Your task to perform on an android device: What's on my calendar tomorrow? Image 0: 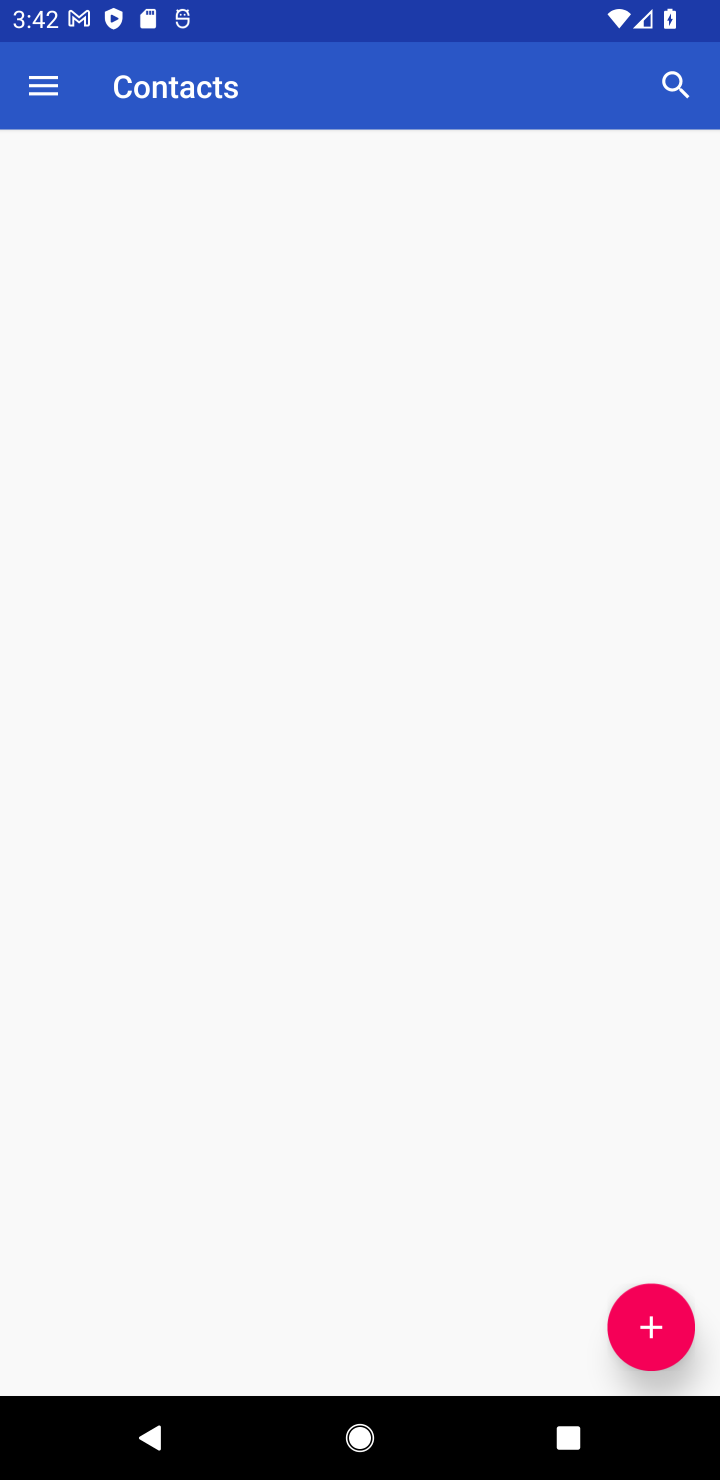
Step 0: press home button
Your task to perform on an android device: What's on my calendar tomorrow? Image 1: 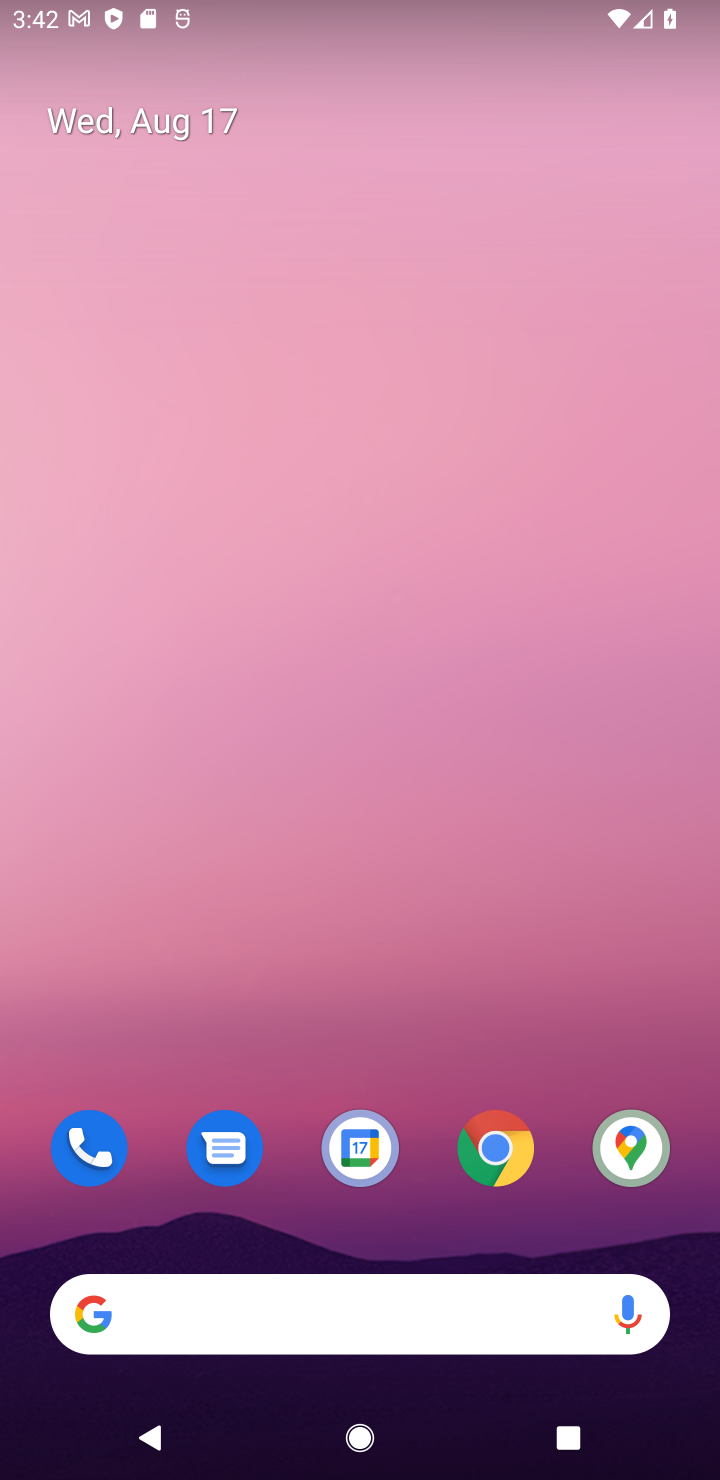
Step 1: drag from (458, 1061) to (414, 169)
Your task to perform on an android device: What's on my calendar tomorrow? Image 2: 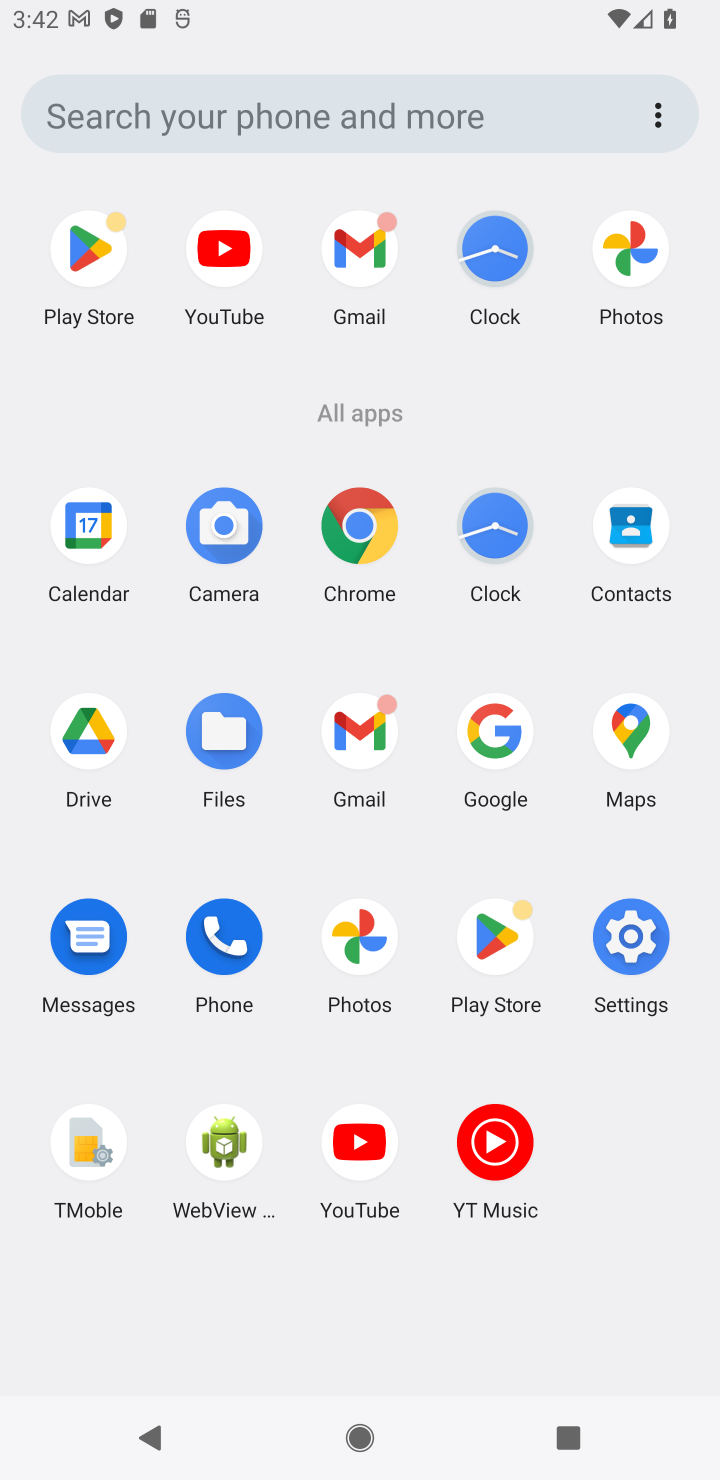
Step 2: click (96, 522)
Your task to perform on an android device: What's on my calendar tomorrow? Image 3: 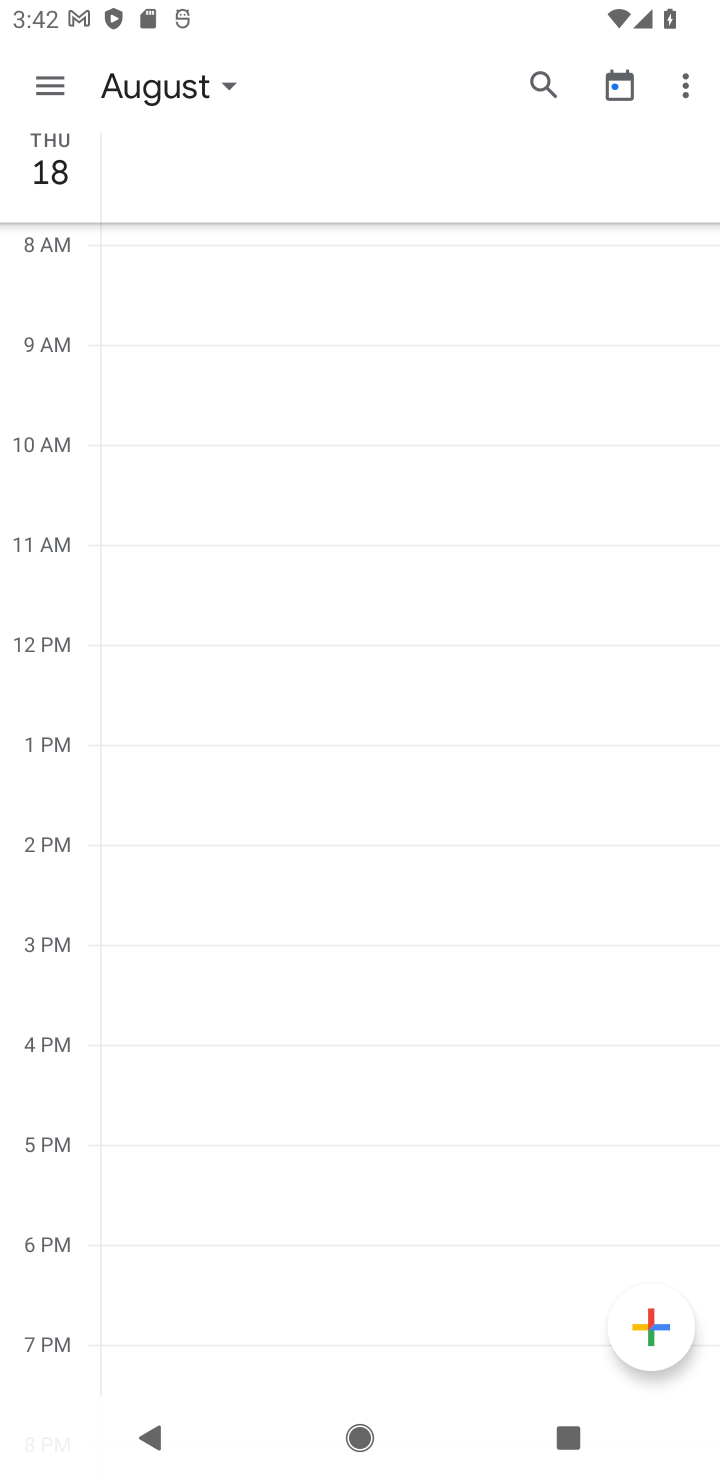
Step 3: task complete